Your task to perform on an android device: Go to internet settings Image 0: 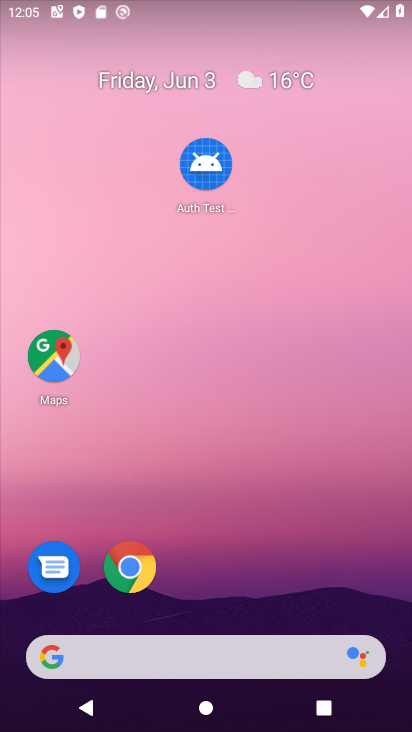
Step 0: drag from (293, 11) to (197, 558)
Your task to perform on an android device: Go to internet settings Image 1: 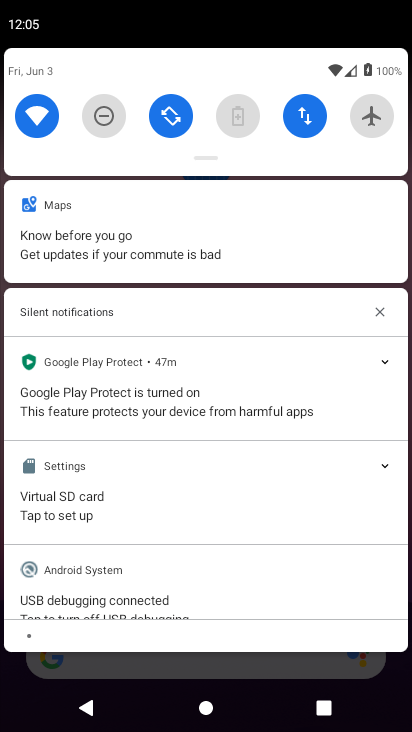
Step 1: click (302, 130)
Your task to perform on an android device: Go to internet settings Image 2: 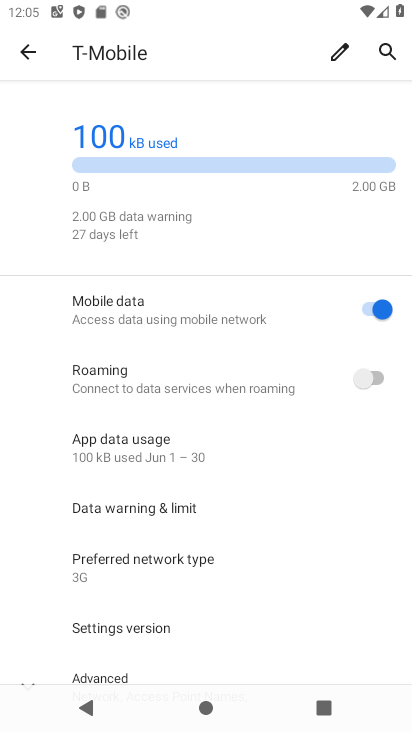
Step 2: task complete